Your task to perform on an android device: turn off location Image 0: 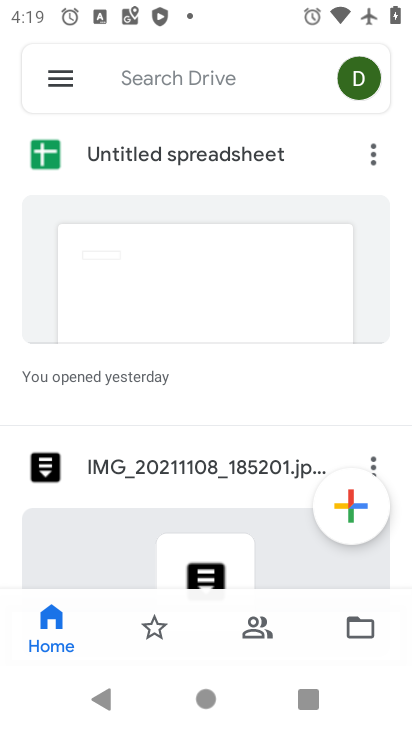
Step 0: press home button
Your task to perform on an android device: turn off location Image 1: 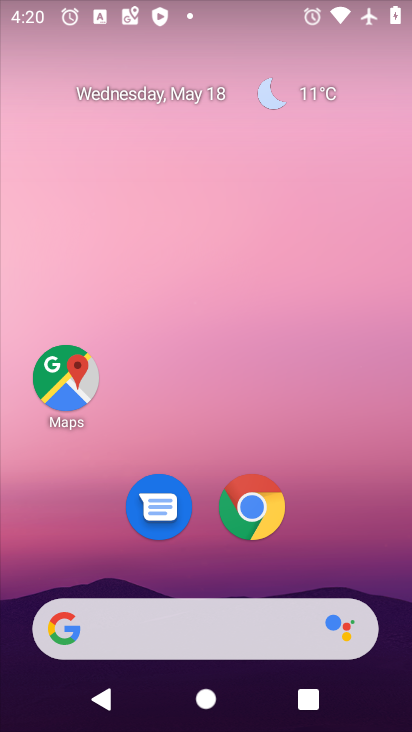
Step 1: drag from (396, 620) to (368, 16)
Your task to perform on an android device: turn off location Image 2: 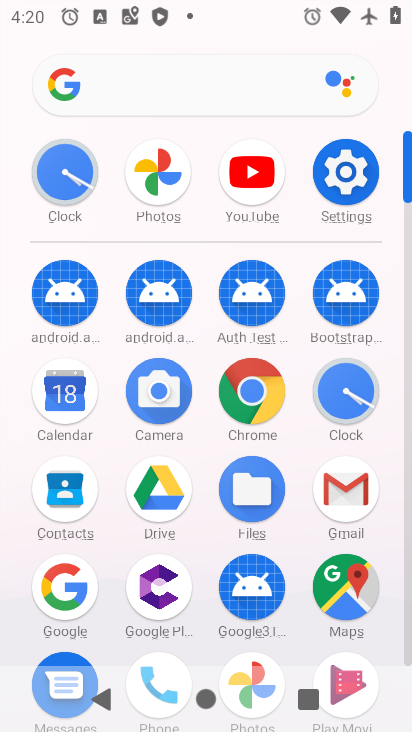
Step 2: click (408, 641)
Your task to perform on an android device: turn off location Image 3: 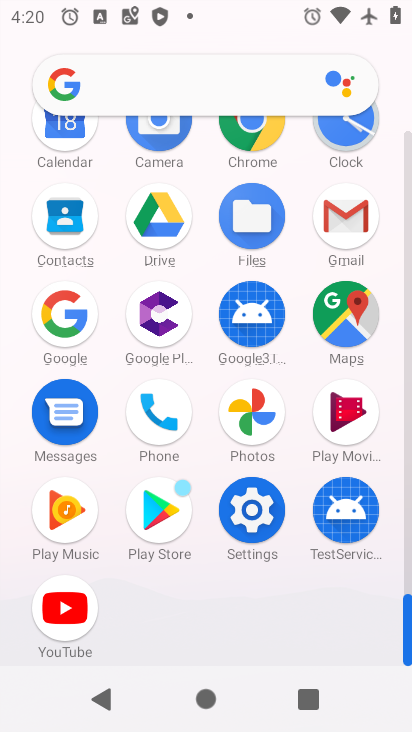
Step 3: click (250, 507)
Your task to perform on an android device: turn off location Image 4: 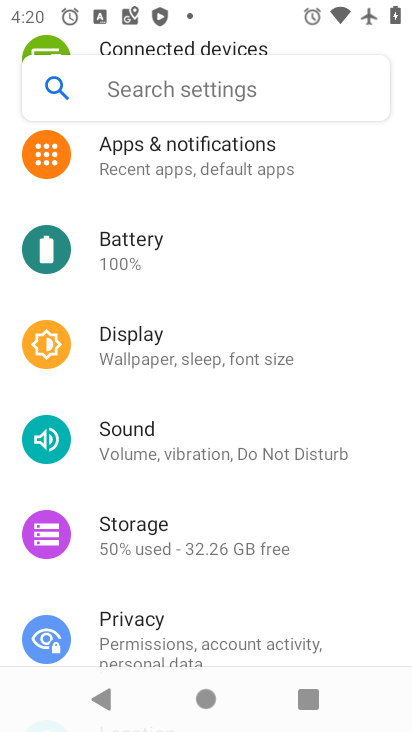
Step 4: drag from (330, 623) to (359, 415)
Your task to perform on an android device: turn off location Image 5: 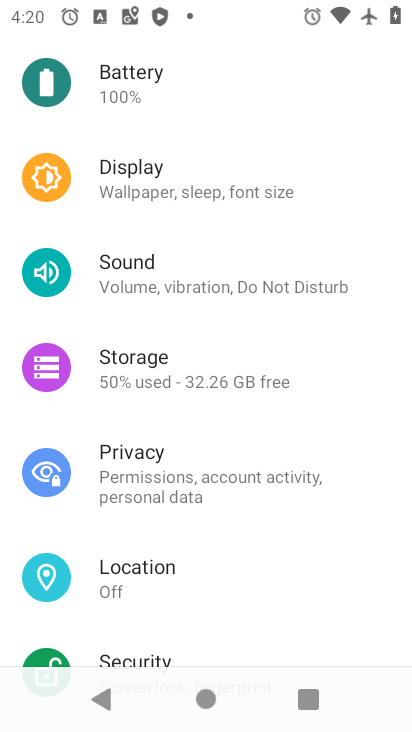
Step 5: click (135, 560)
Your task to perform on an android device: turn off location Image 6: 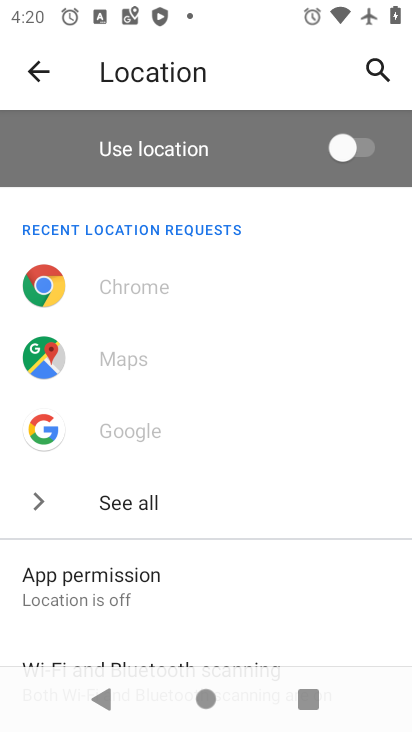
Step 6: task complete